Your task to perform on an android device: change notification settings in the gmail app Image 0: 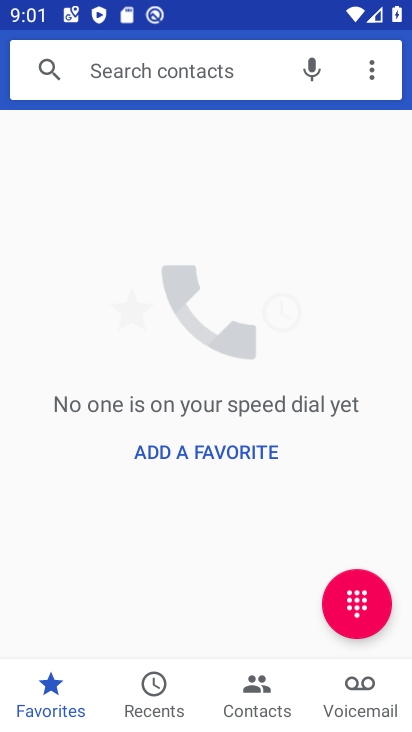
Step 0: press home button
Your task to perform on an android device: change notification settings in the gmail app Image 1: 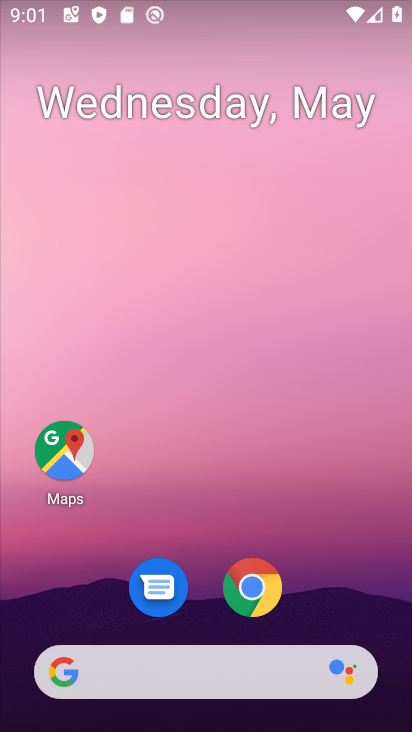
Step 1: drag from (368, 635) to (365, 78)
Your task to perform on an android device: change notification settings in the gmail app Image 2: 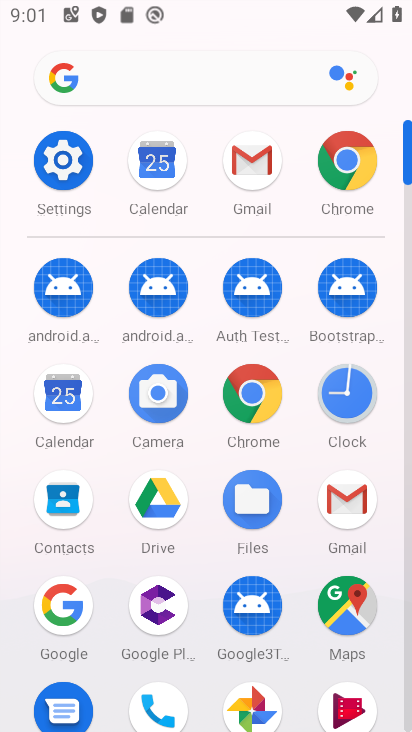
Step 2: click (410, 712)
Your task to perform on an android device: change notification settings in the gmail app Image 3: 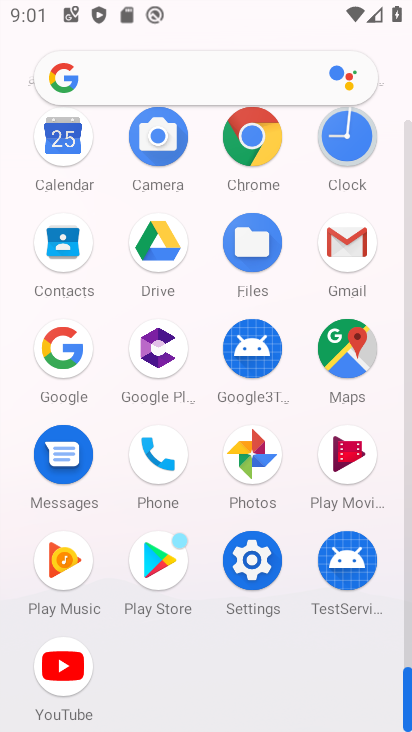
Step 3: click (345, 239)
Your task to perform on an android device: change notification settings in the gmail app Image 4: 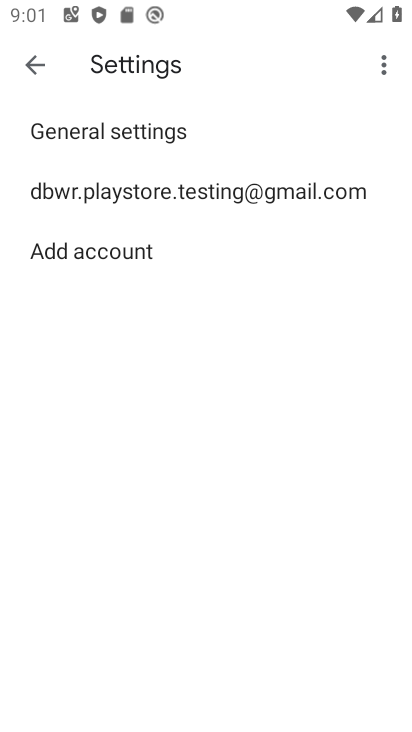
Step 4: click (153, 195)
Your task to perform on an android device: change notification settings in the gmail app Image 5: 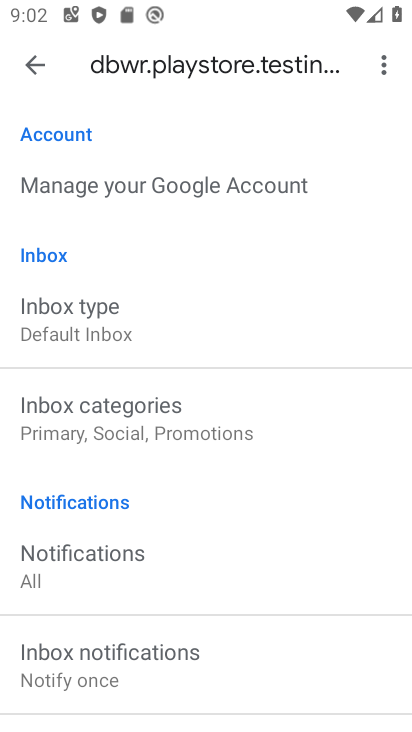
Step 5: drag from (195, 590) to (254, 186)
Your task to perform on an android device: change notification settings in the gmail app Image 6: 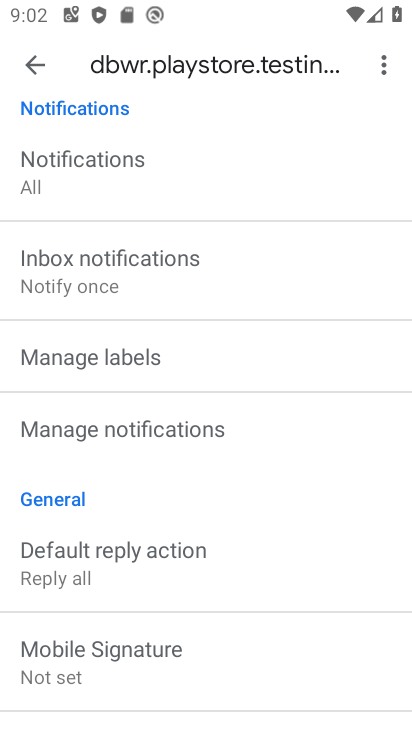
Step 6: click (154, 414)
Your task to perform on an android device: change notification settings in the gmail app Image 7: 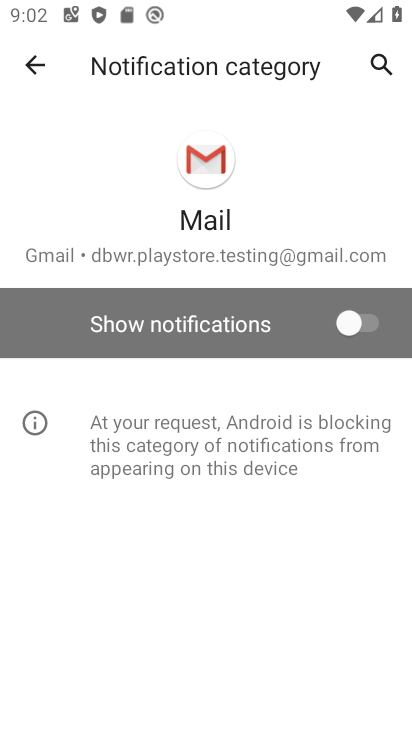
Step 7: click (374, 331)
Your task to perform on an android device: change notification settings in the gmail app Image 8: 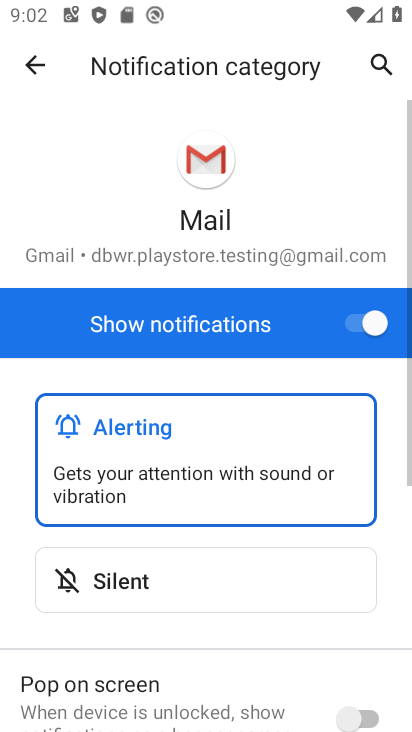
Step 8: task complete